Your task to perform on an android device: Open Google Maps and go to "Timeline" Image 0: 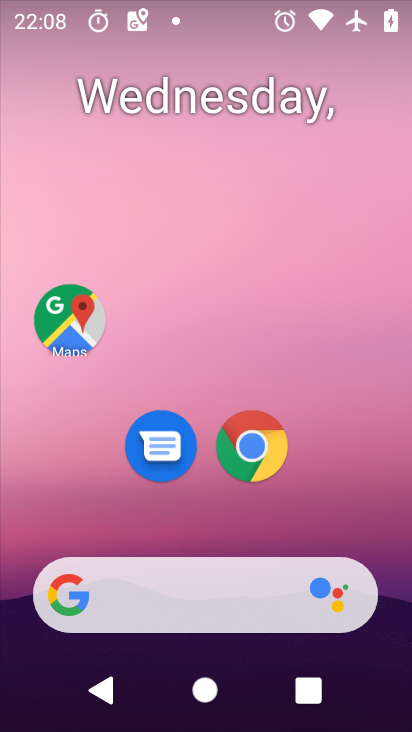
Step 0: press home button
Your task to perform on an android device: Open Google Maps and go to "Timeline" Image 1: 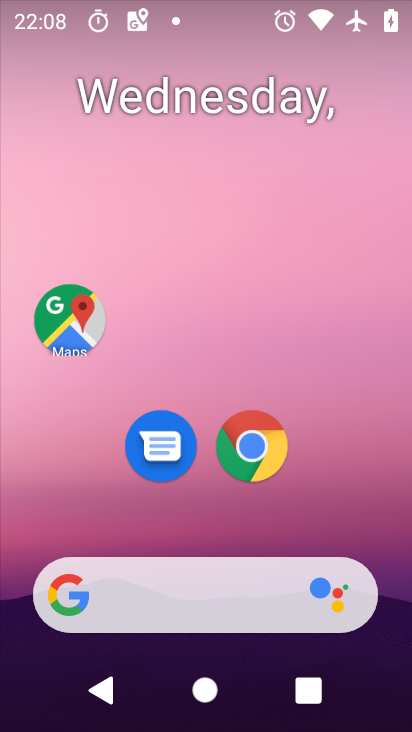
Step 1: click (74, 329)
Your task to perform on an android device: Open Google Maps and go to "Timeline" Image 2: 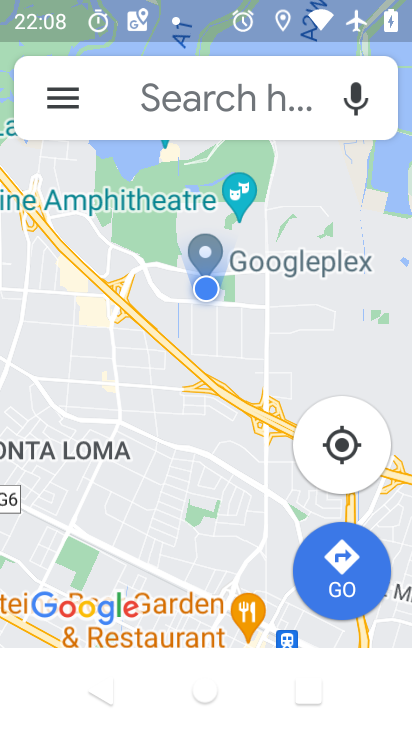
Step 2: click (61, 103)
Your task to perform on an android device: Open Google Maps and go to "Timeline" Image 3: 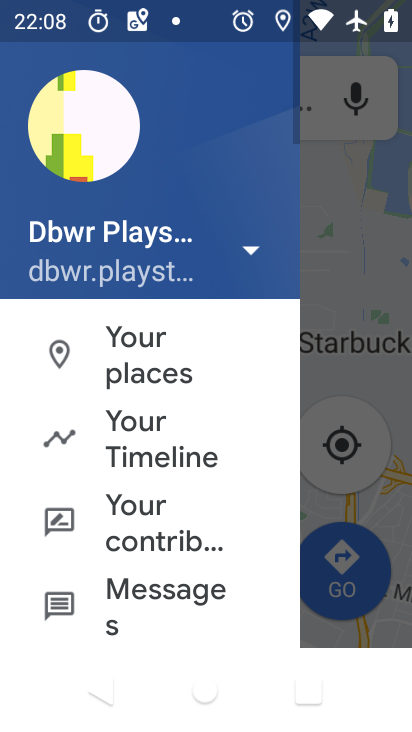
Step 3: click (169, 442)
Your task to perform on an android device: Open Google Maps and go to "Timeline" Image 4: 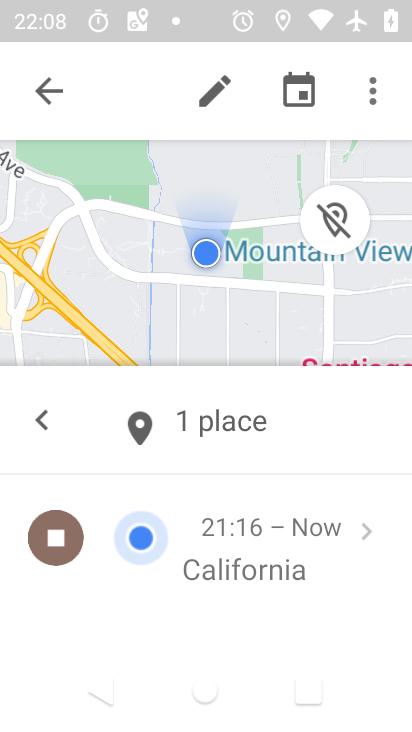
Step 4: task complete